Your task to perform on an android device: open chrome privacy settings Image 0: 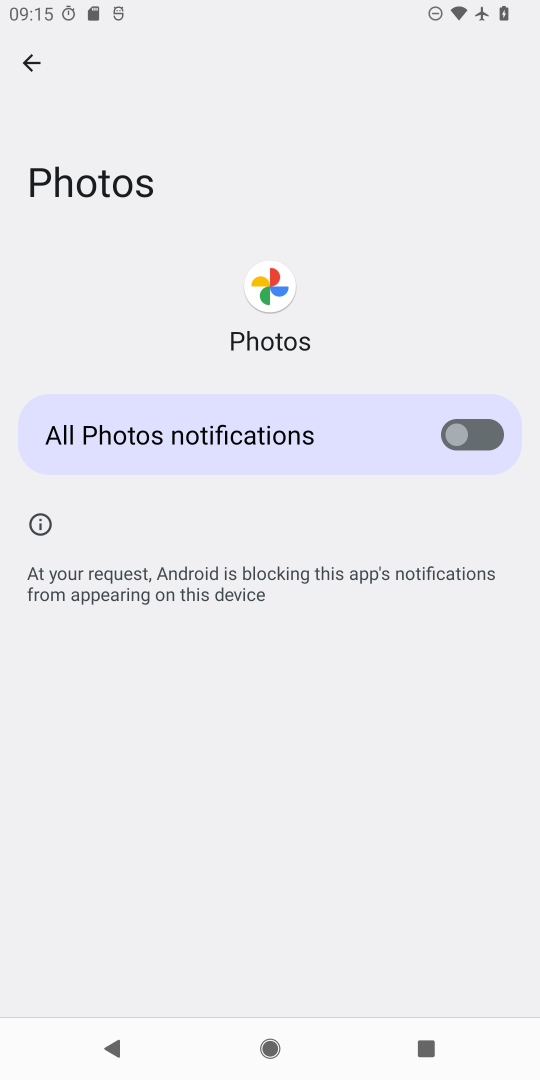
Step 0: click (68, 66)
Your task to perform on an android device: open chrome privacy settings Image 1: 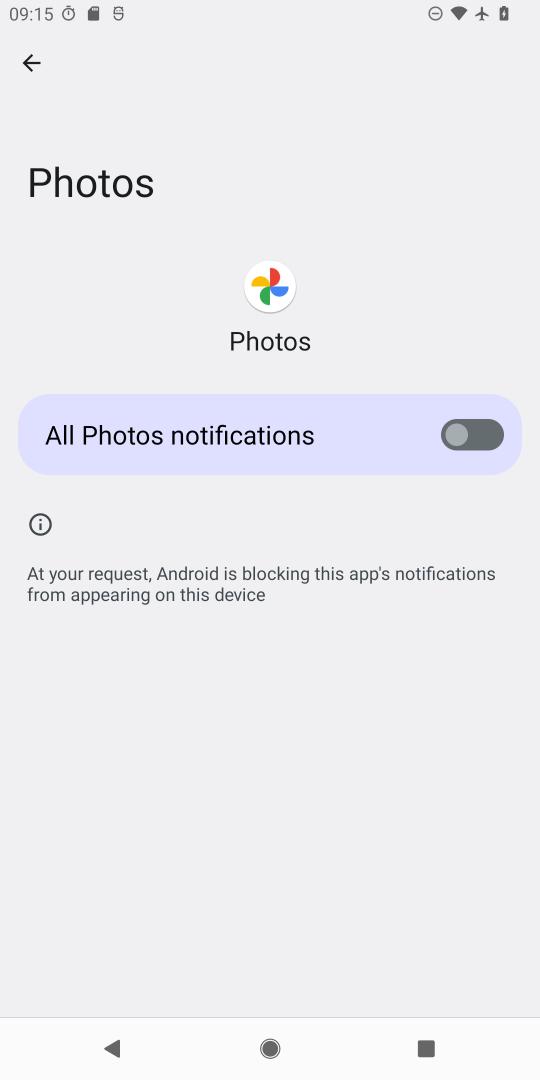
Step 1: press home button
Your task to perform on an android device: open chrome privacy settings Image 2: 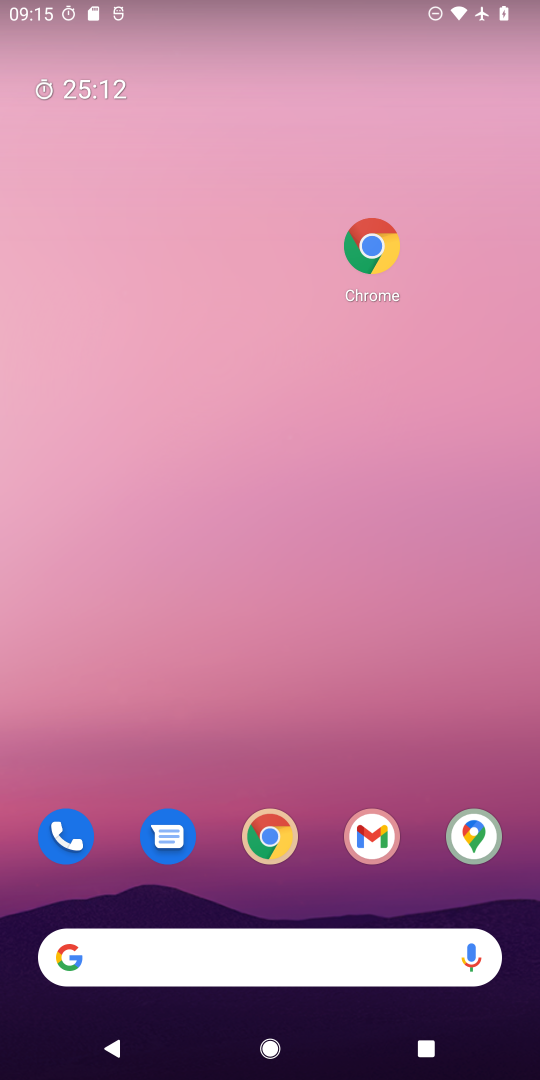
Step 2: drag from (194, 704) to (218, 340)
Your task to perform on an android device: open chrome privacy settings Image 3: 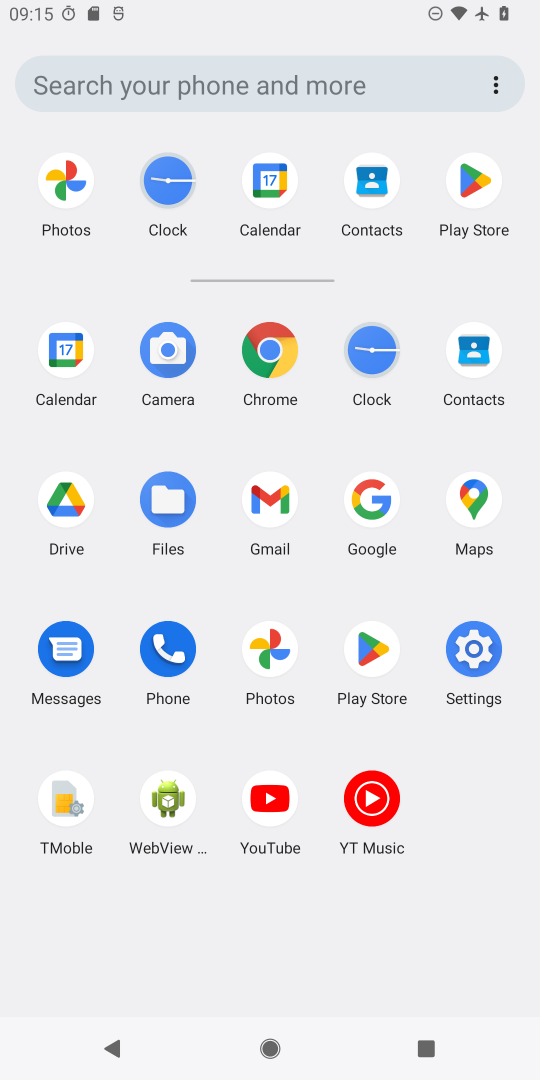
Step 3: click (278, 333)
Your task to perform on an android device: open chrome privacy settings Image 4: 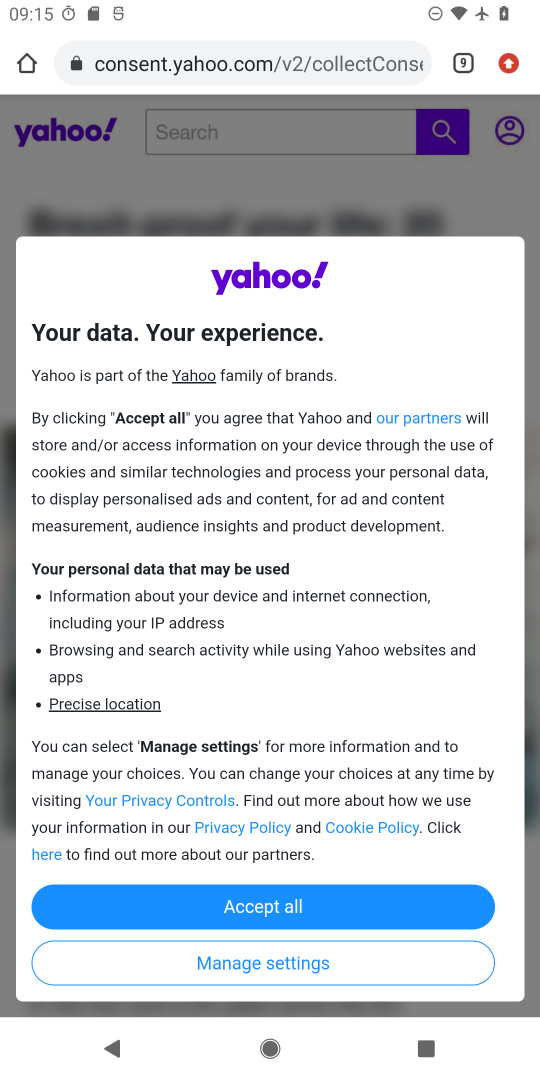
Step 4: click (509, 61)
Your task to perform on an android device: open chrome privacy settings Image 5: 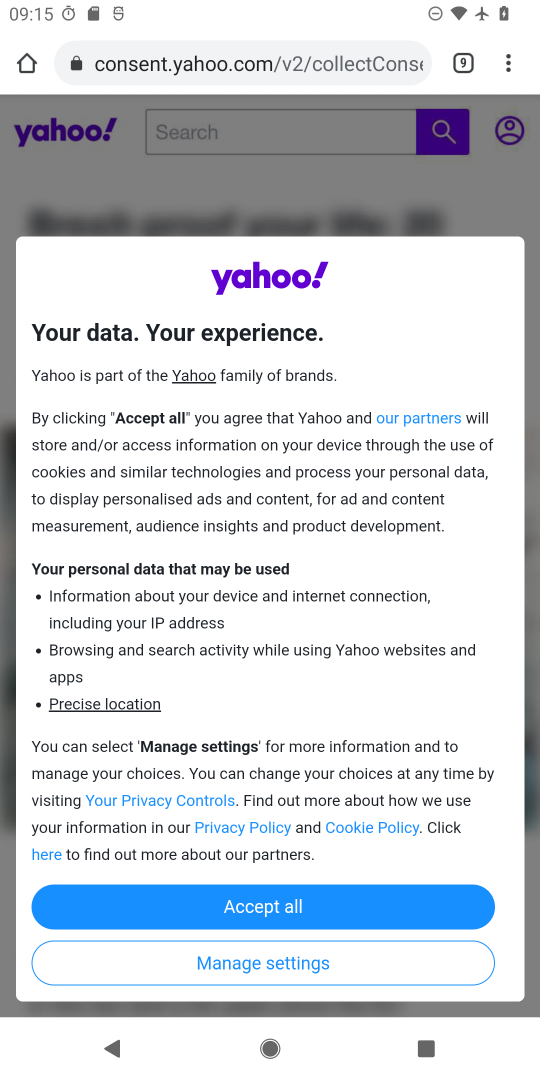
Step 5: click (523, 65)
Your task to perform on an android device: open chrome privacy settings Image 6: 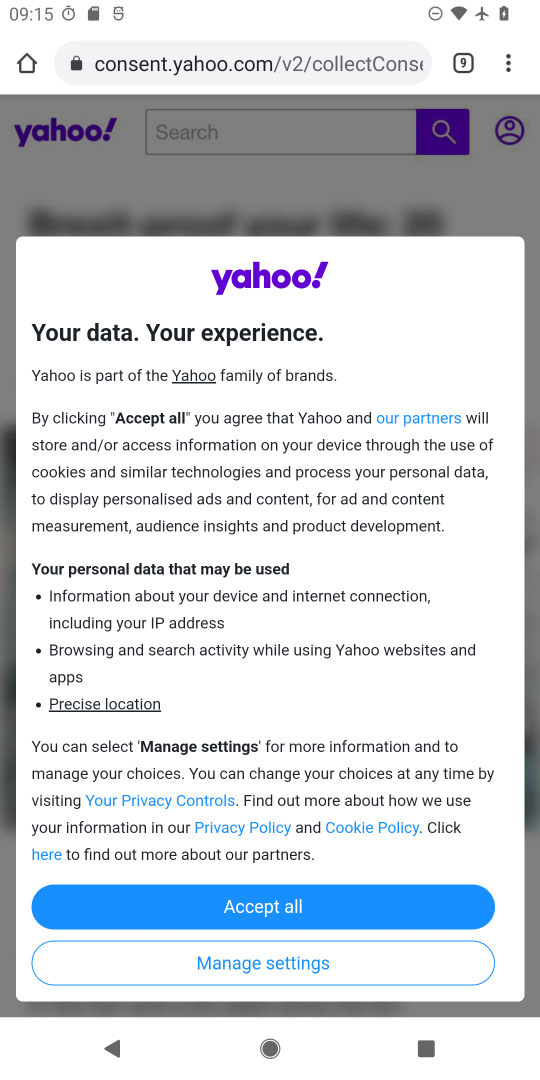
Step 6: click (514, 52)
Your task to perform on an android device: open chrome privacy settings Image 7: 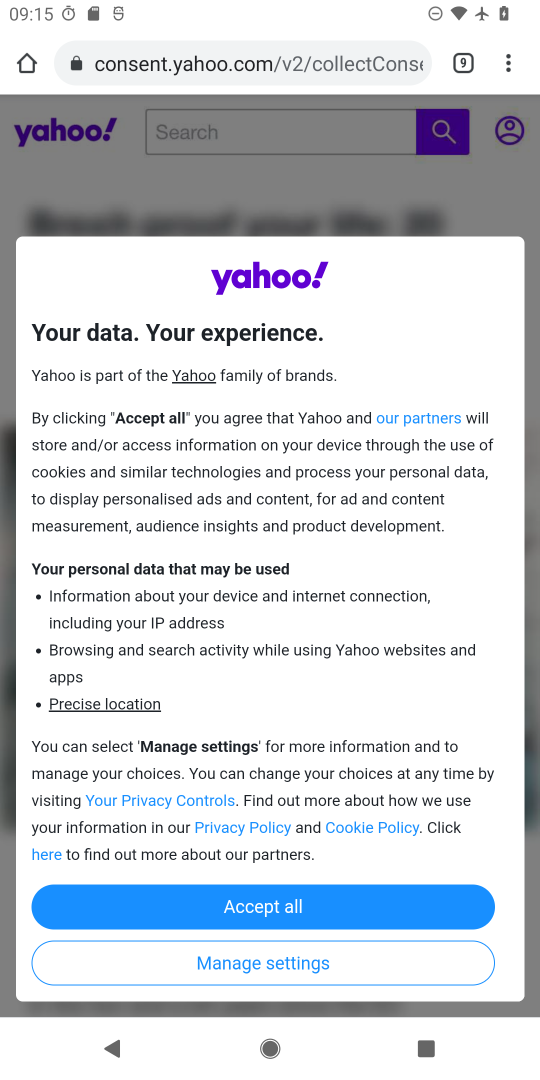
Step 7: click (514, 52)
Your task to perform on an android device: open chrome privacy settings Image 8: 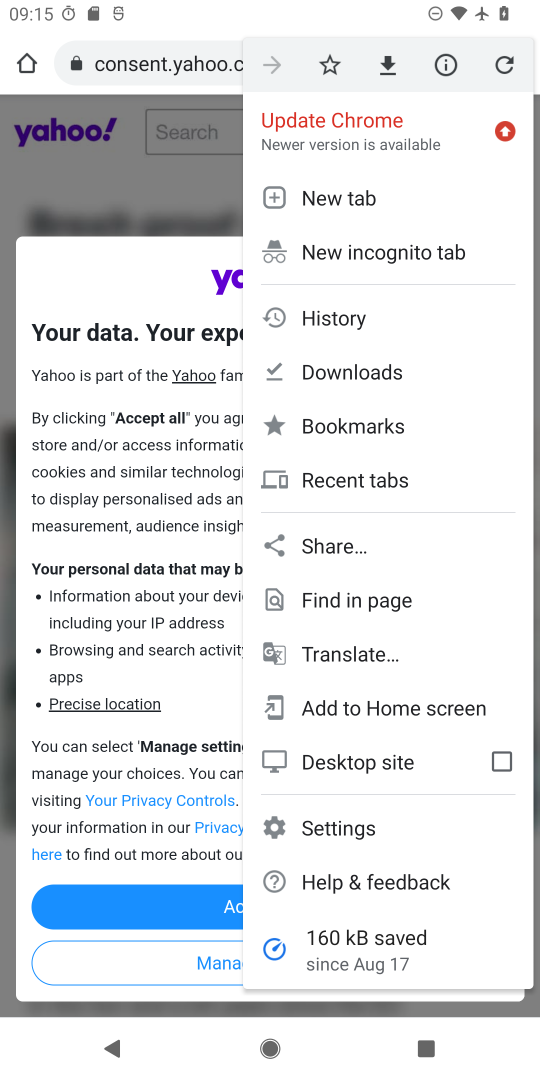
Step 8: click (324, 842)
Your task to perform on an android device: open chrome privacy settings Image 9: 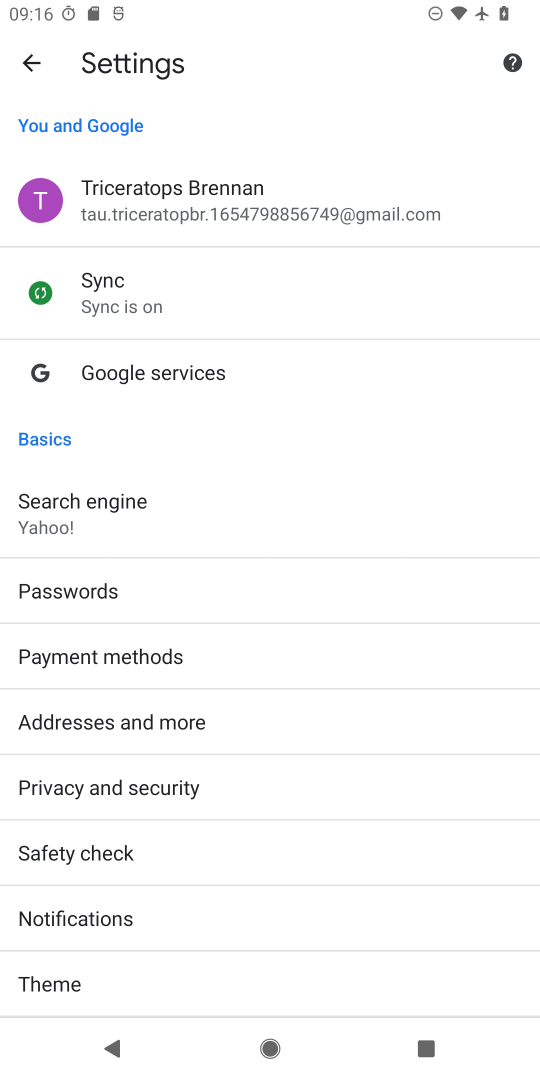
Step 9: click (130, 784)
Your task to perform on an android device: open chrome privacy settings Image 10: 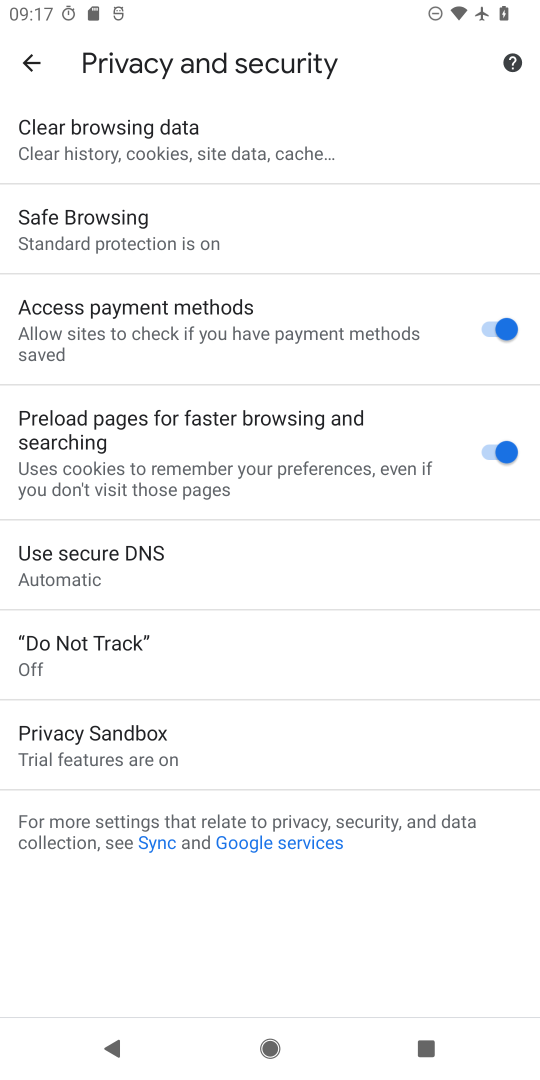
Step 10: task complete